Your task to perform on an android device: Open the stopwatch Image 0: 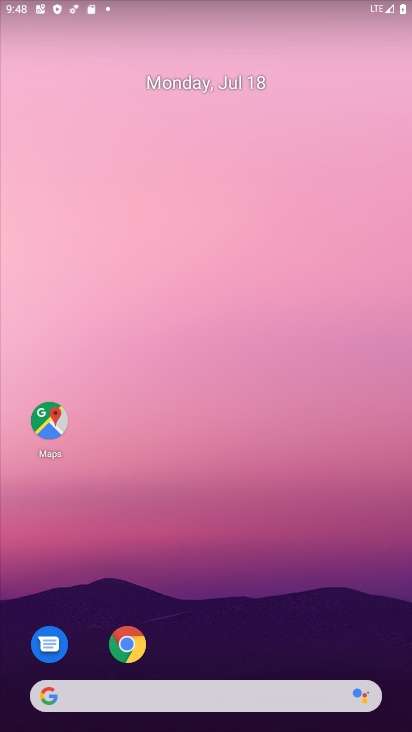
Step 0: drag from (333, 627) to (382, 150)
Your task to perform on an android device: Open the stopwatch Image 1: 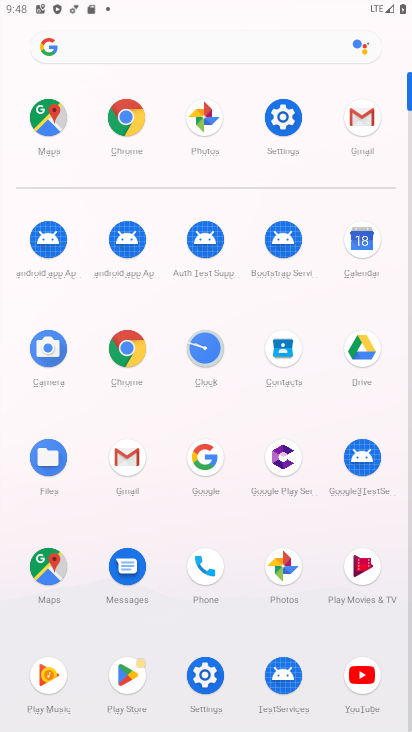
Step 1: click (209, 350)
Your task to perform on an android device: Open the stopwatch Image 2: 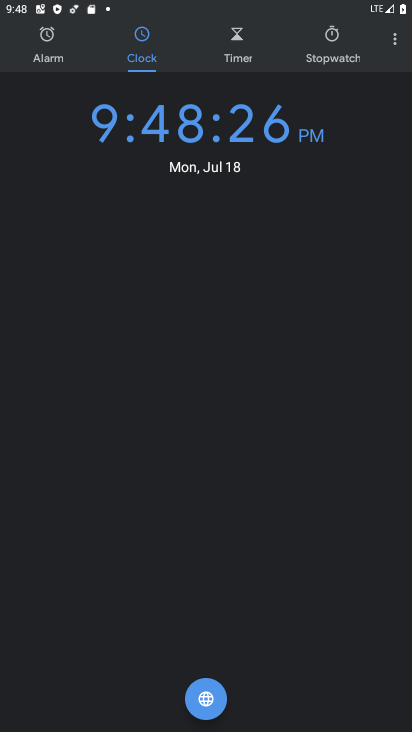
Step 2: click (326, 49)
Your task to perform on an android device: Open the stopwatch Image 3: 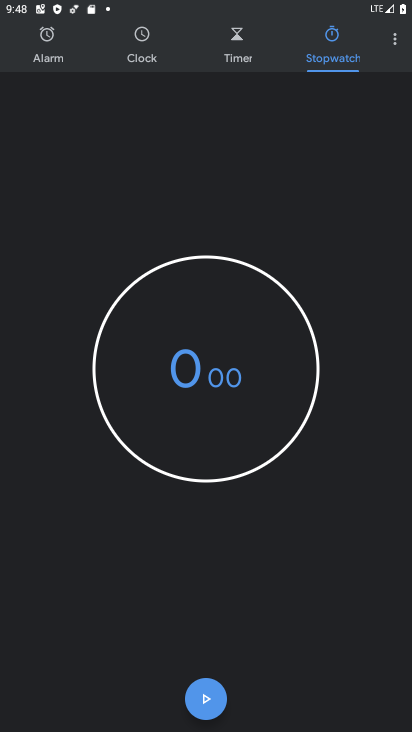
Step 3: task complete